Your task to perform on an android device: Go to location settings Image 0: 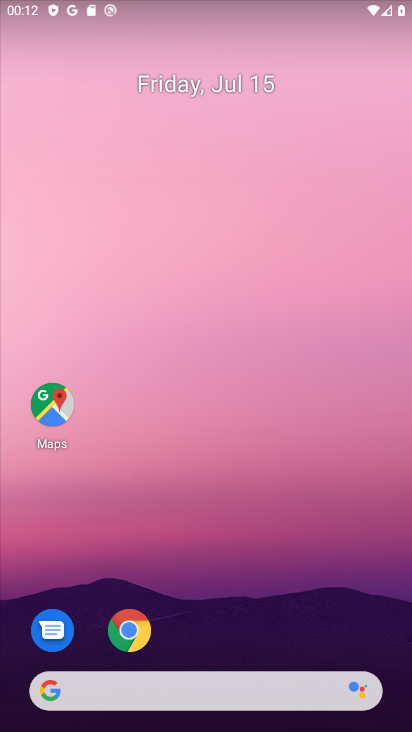
Step 0: drag from (260, 645) to (250, 75)
Your task to perform on an android device: Go to location settings Image 1: 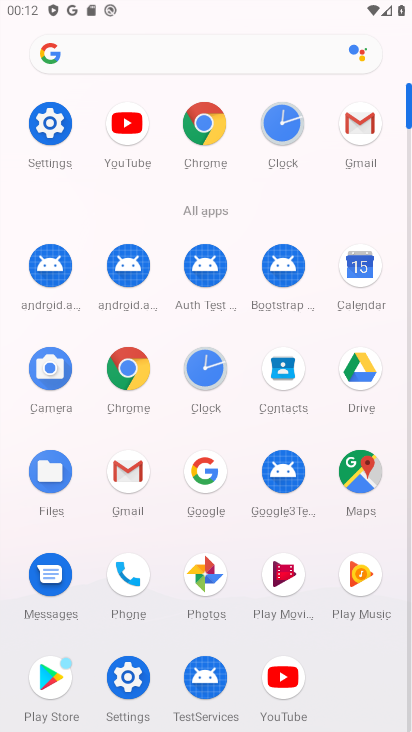
Step 1: click (60, 127)
Your task to perform on an android device: Go to location settings Image 2: 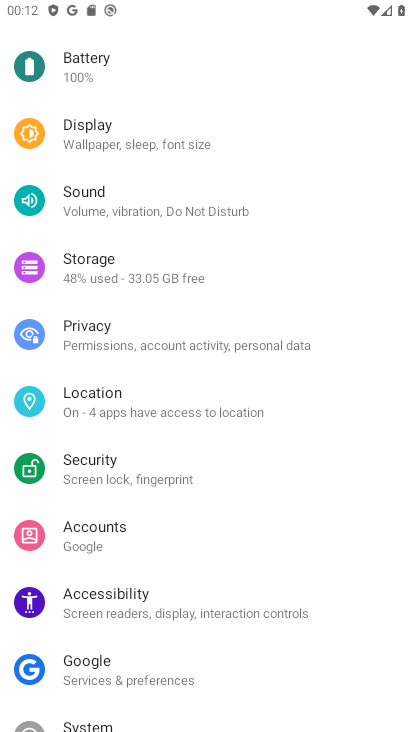
Step 2: click (100, 413)
Your task to perform on an android device: Go to location settings Image 3: 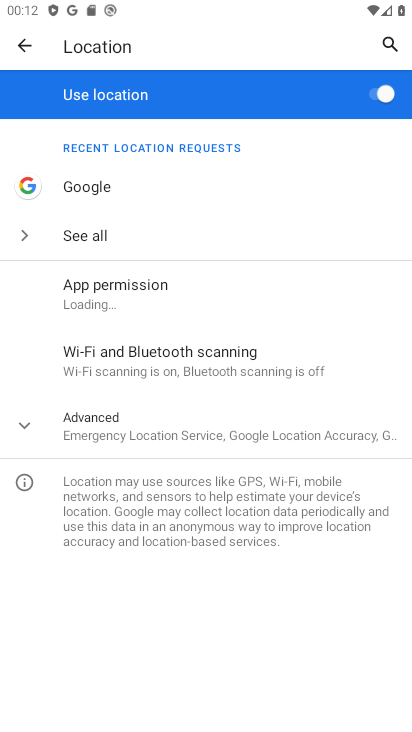
Step 3: click (100, 412)
Your task to perform on an android device: Go to location settings Image 4: 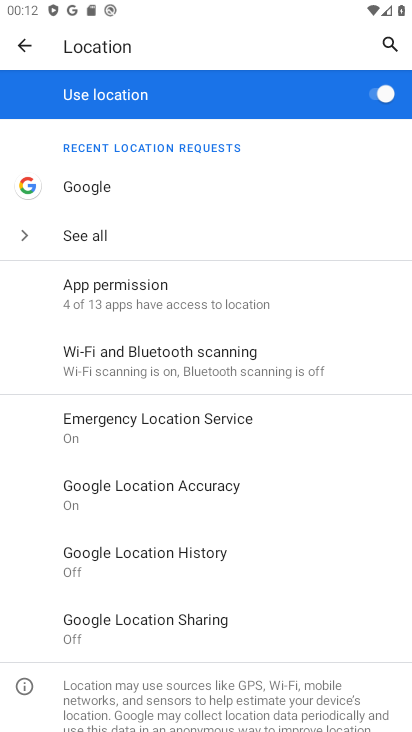
Step 4: task complete